Your task to perform on an android device: choose inbox layout in the gmail app Image 0: 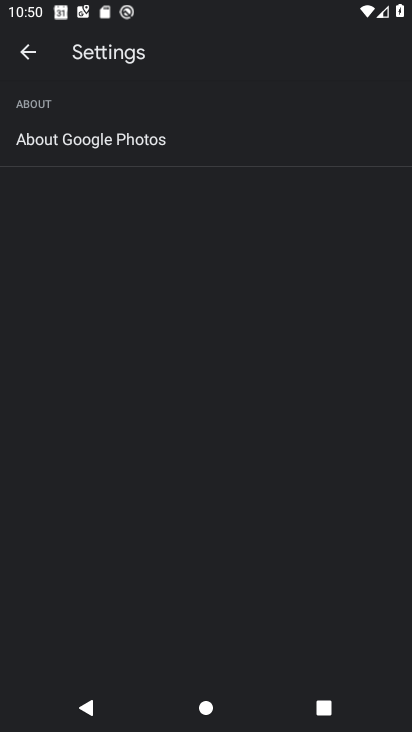
Step 0: press home button
Your task to perform on an android device: choose inbox layout in the gmail app Image 1: 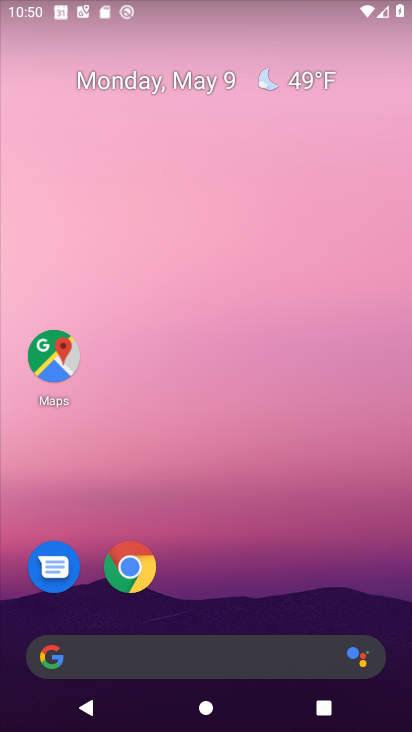
Step 1: drag from (214, 629) to (209, 221)
Your task to perform on an android device: choose inbox layout in the gmail app Image 2: 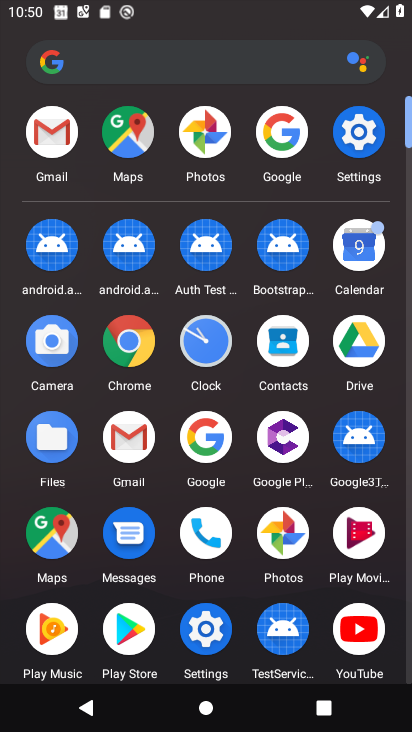
Step 2: click (47, 139)
Your task to perform on an android device: choose inbox layout in the gmail app Image 3: 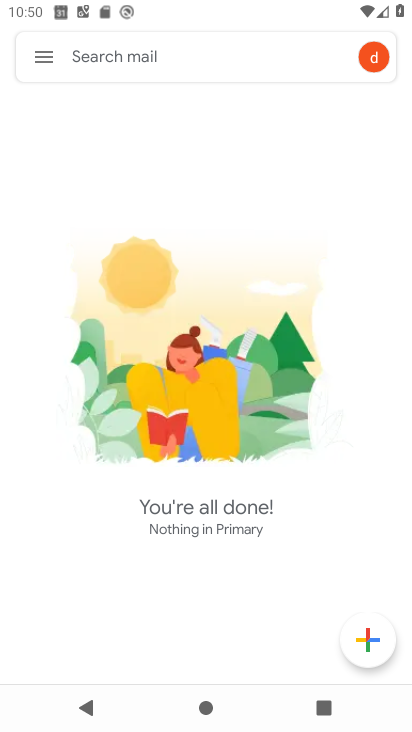
Step 3: click (36, 66)
Your task to perform on an android device: choose inbox layout in the gmail app Image 4: 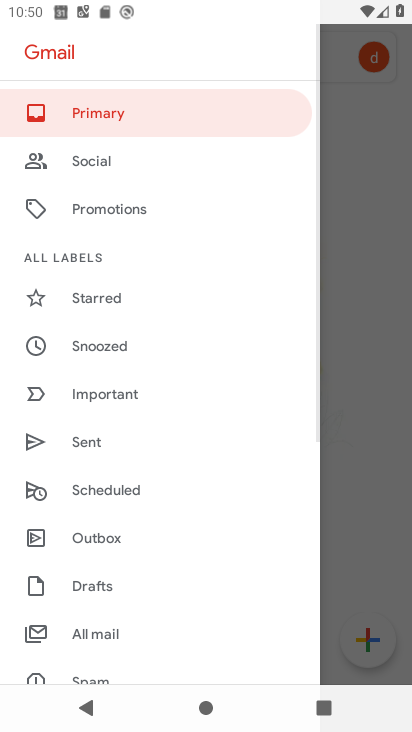
Step 4: drag from (83, 593) to (138, 220)
Your task to perform on an android device: choose inbox layout in the gmail app Image 5: 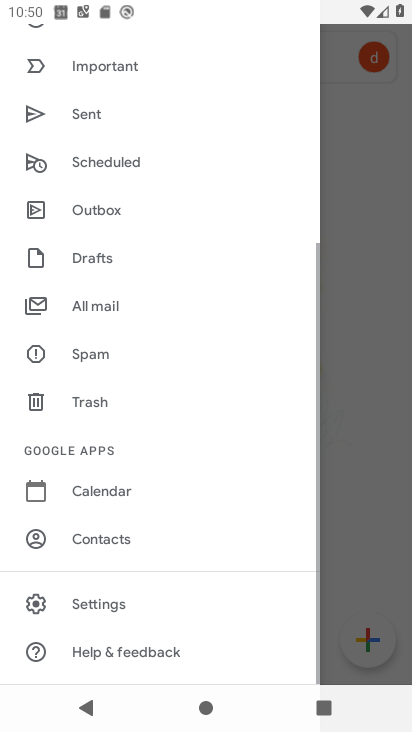
Step 5: click (102, 600)
Your task to perform on an android device: choose inbox layout in the gmail app Image 6: 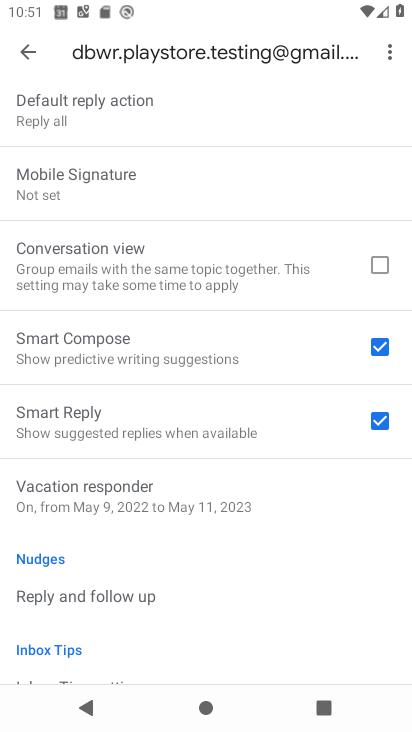
Step 6: drag from (199, 162) to (177, 599)
Your task to perform on an android device: choose inbox layout in the gmail app Image 7: 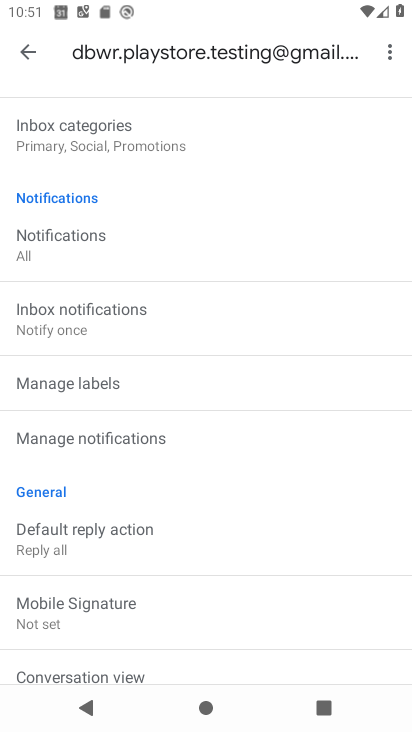
Step 7: click (62, 138)
Your task to perform on an android device: choose inbox layout in the gmail app Image 8: 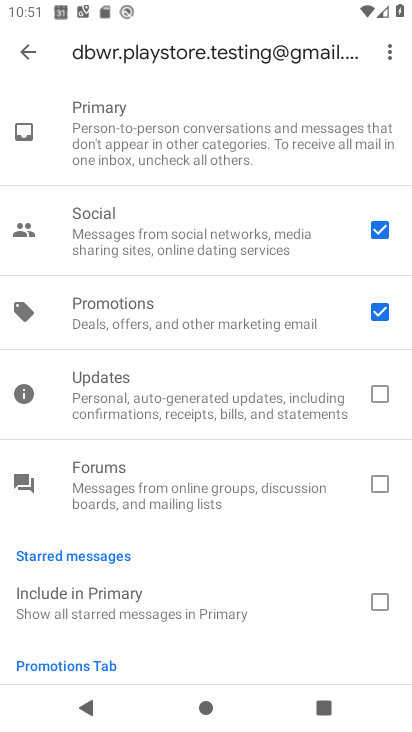
Step 8: click (20, 49)
Your task to perform on an android device: choose inbox layout in the gmail app Image 9: 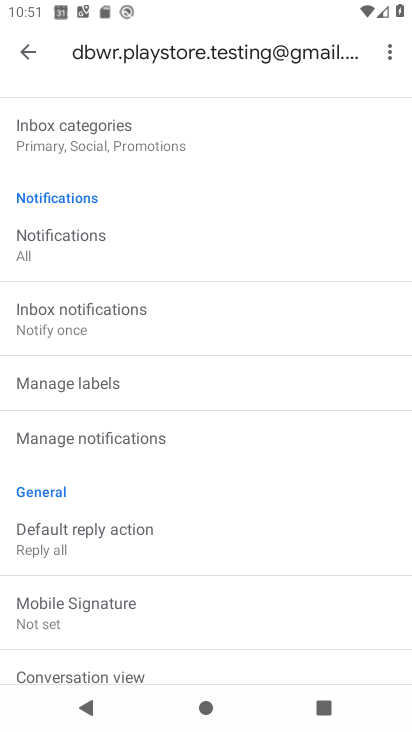
Step 9: drag from (131, 134) to (82, 616)
Your task to perform on an android device: choose inbox layout in the gmail app Image 10: 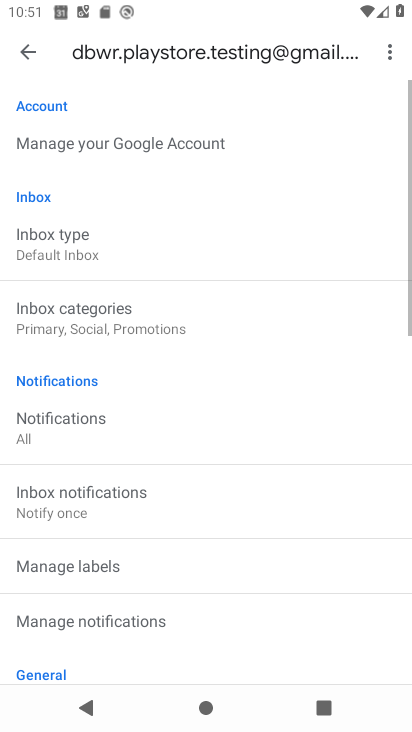
Step 10: click (56, 251)
Your task to perform on an android device: choose inbox layout in the gmail app Image 11: 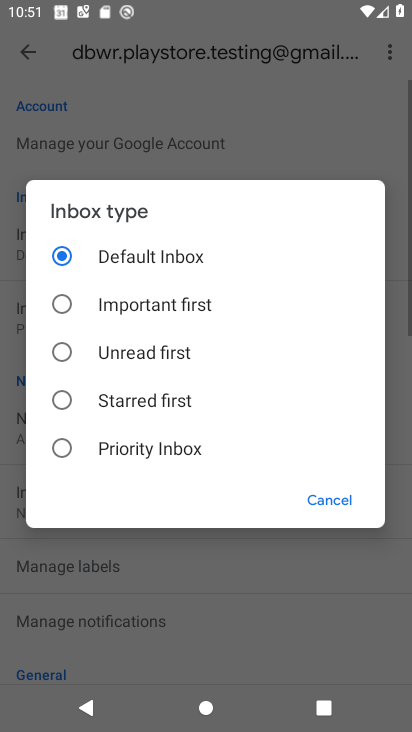
Step 11: click (119, 445)
Your task to perform on an android device: choose inbox layout in the gmail app Image 12: 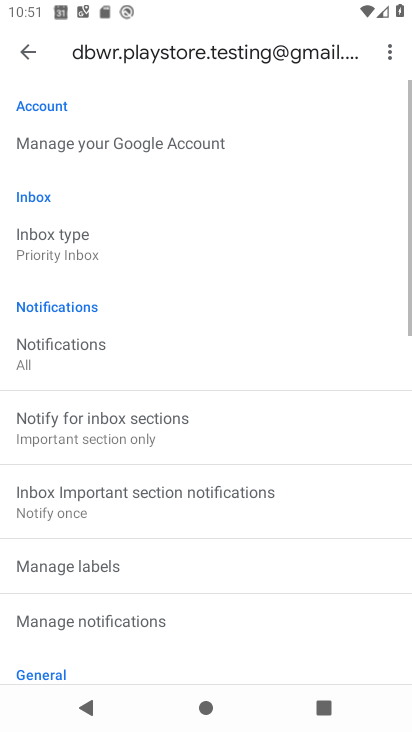
Step 12: task complete